Your task to perform on an android device: turn off translation in the chrome app Image 0: 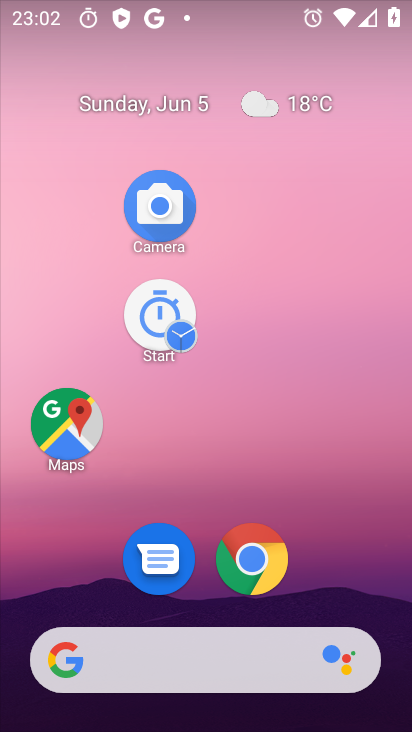
Step 0: drag from (243, 706) to (266, 332)
Your task to perform on an android device: turn off translation in the chrome app Image 1: 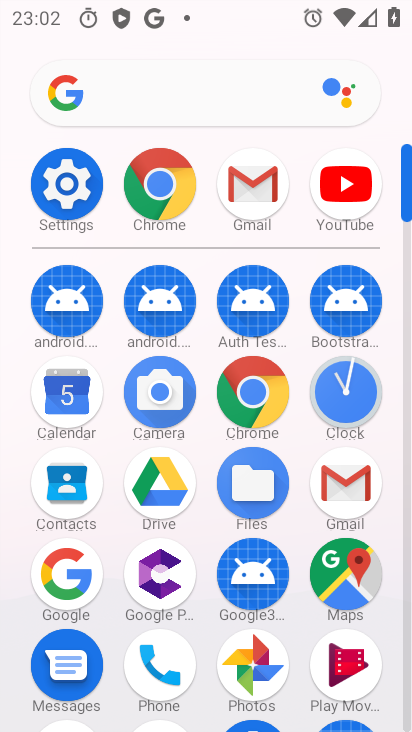
Step 1: click (158, 194)
Your task to perform on an android device: turn off translation in the chrome app Image 2: 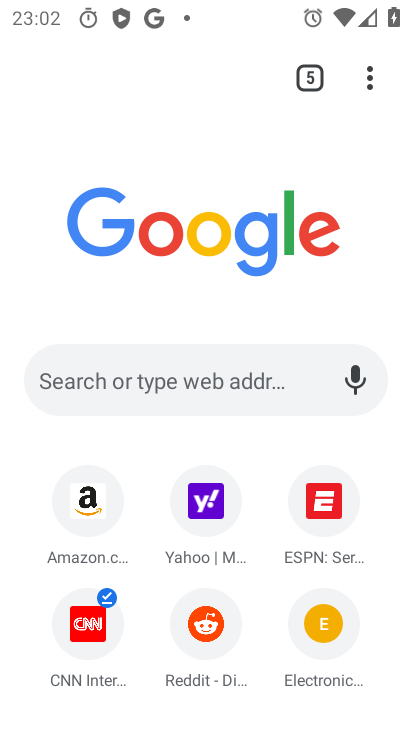
Step 2: click (367, 82)
Your task to perform on an android device: turn off translation in the chrome app Image 3: 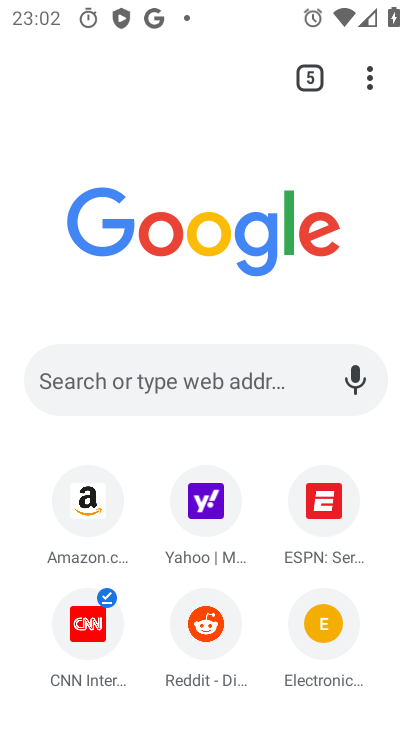
Step 3: drag from (366, 80) to (67, 622)
Your task to perform on an android device: turn off translation in the chrome app Image 4: 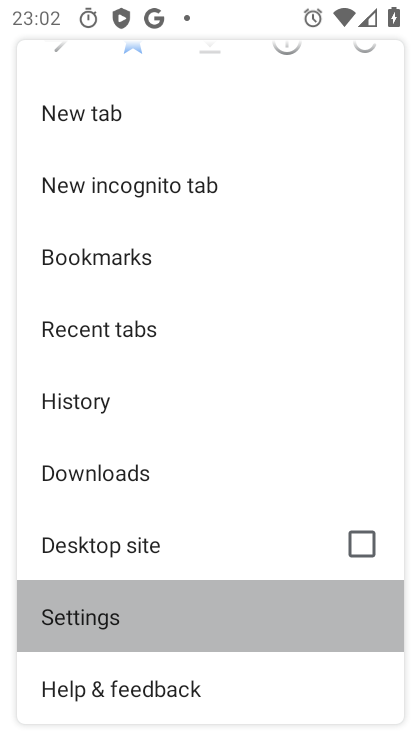
Step 4: click (67, 625)
Your task to perform on an android device: turn off translation in the chrome app Image 5: 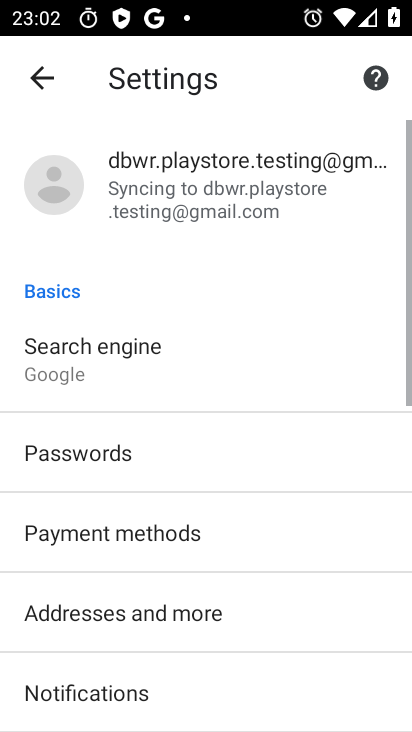
Step 5: drag from (203, 617) to (168, 176)
Your task to perform on an android device: turn off translation in the chrome app Image 6: 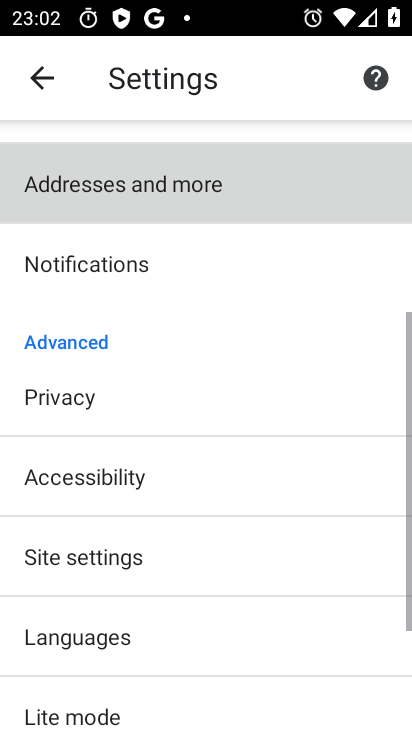
Step 6: drag from (85, 551) to (84, 243)
Your task to perform on an android device: turn off translation in the chrome app Image 7: 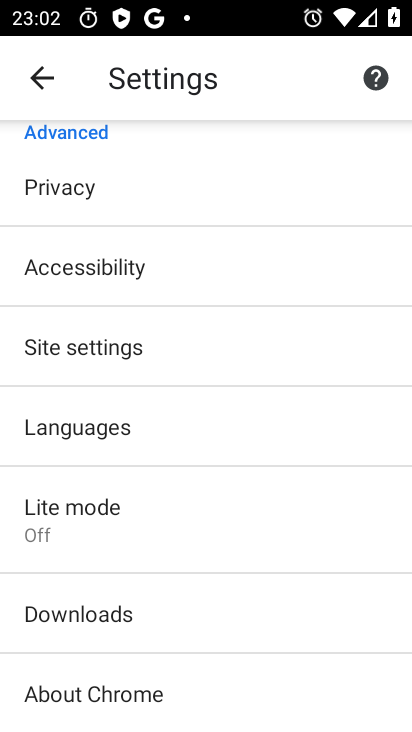
Step 7: click (95, 425)
Your task to perform on an android device: turn off translation in the chrome app Image 8: 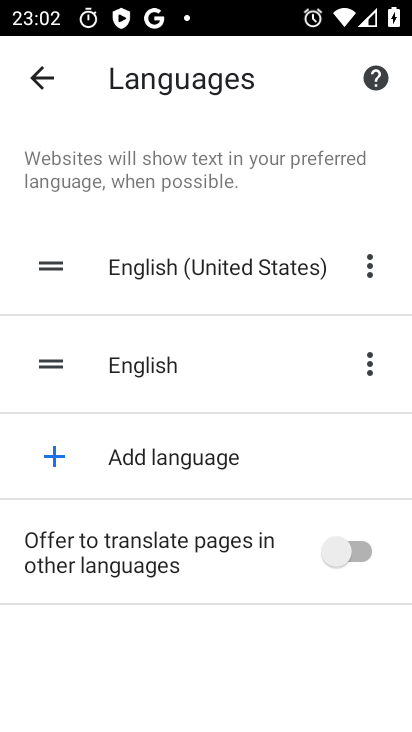
Step 8: task complete